Your task to perform on an android device: Search for usb-a on ebay.com, select the first entry, and add it to the cart. Image 0: 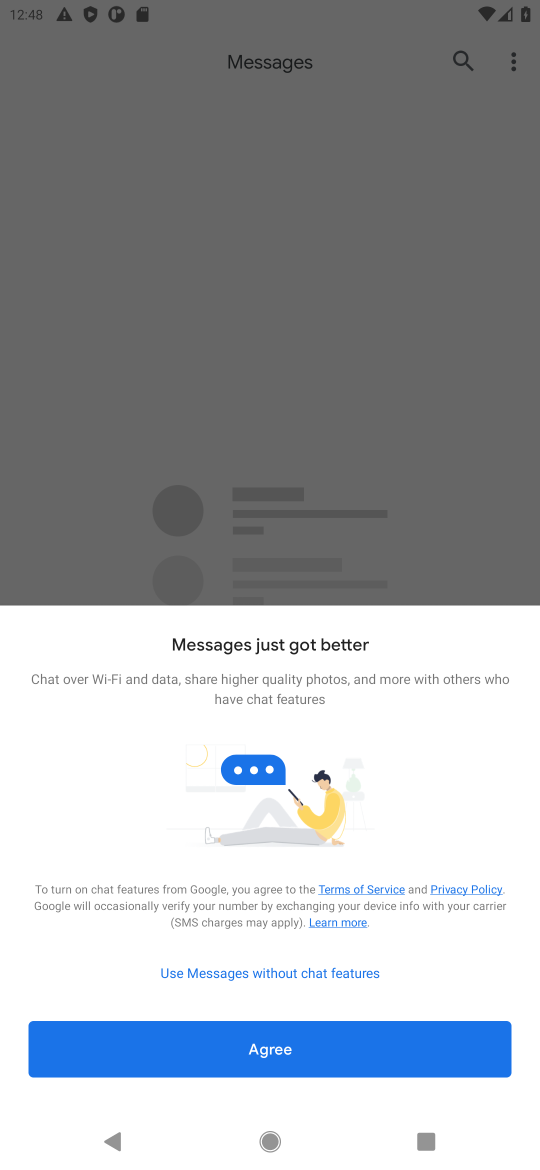
Step 0: press home button
Your task to perform on an android device: Search for usb-a on ebay.com, select the first entry, and add it to the cart. Image 1: 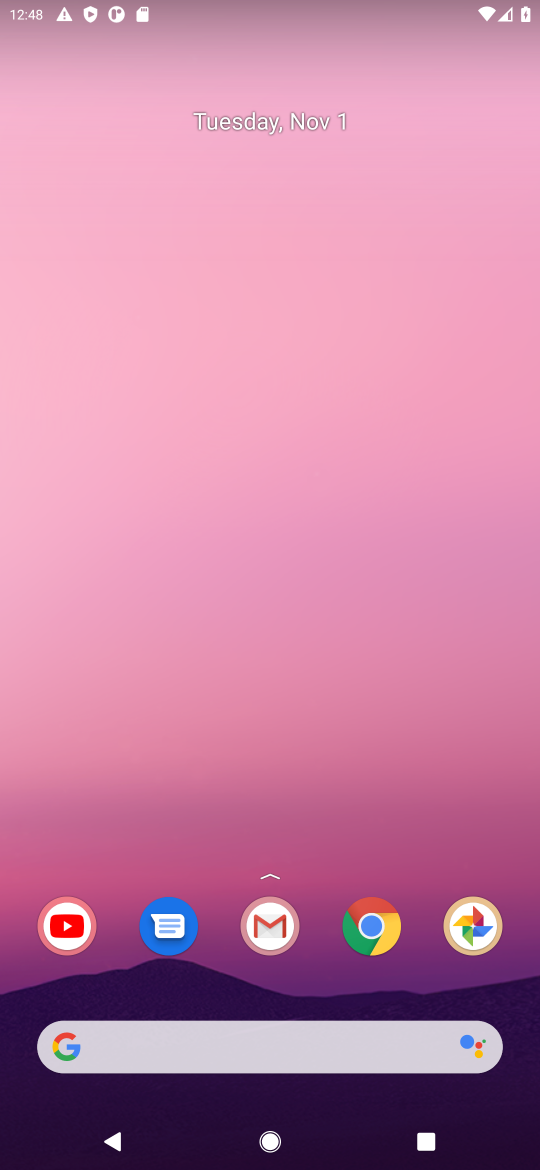
Step 1: click (380, 928)
Your task to perform on an android device: Search for usb-a on ebay.com, select the first entry, and add it to the cart. Image 2: 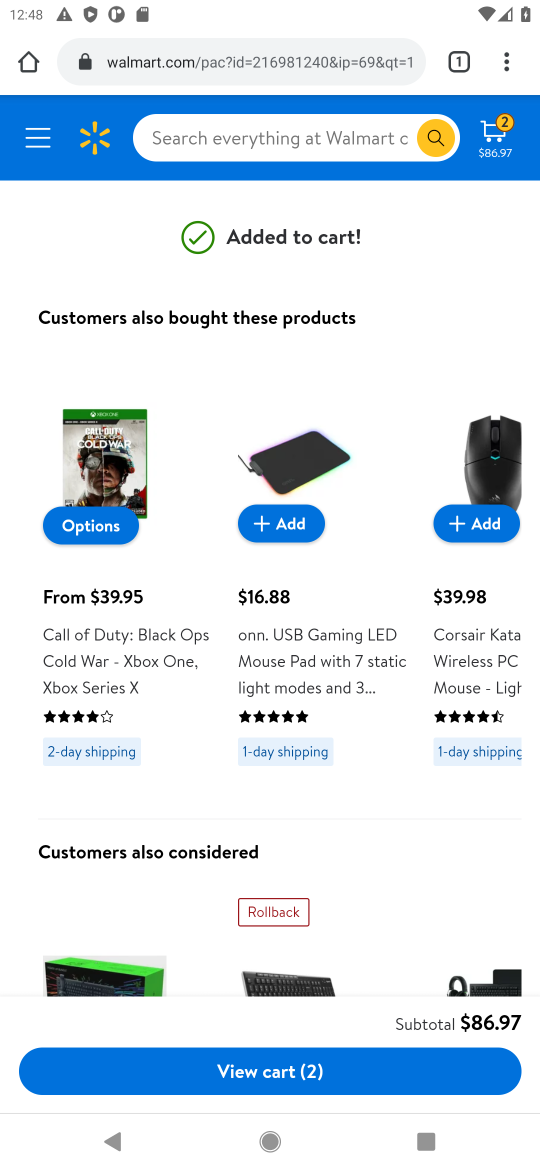
Step 2: click (288, 64)
Your task to perform on an android device: Search for usb-a on ebay.com, select the first entry, and add it to the cart. Image 3: 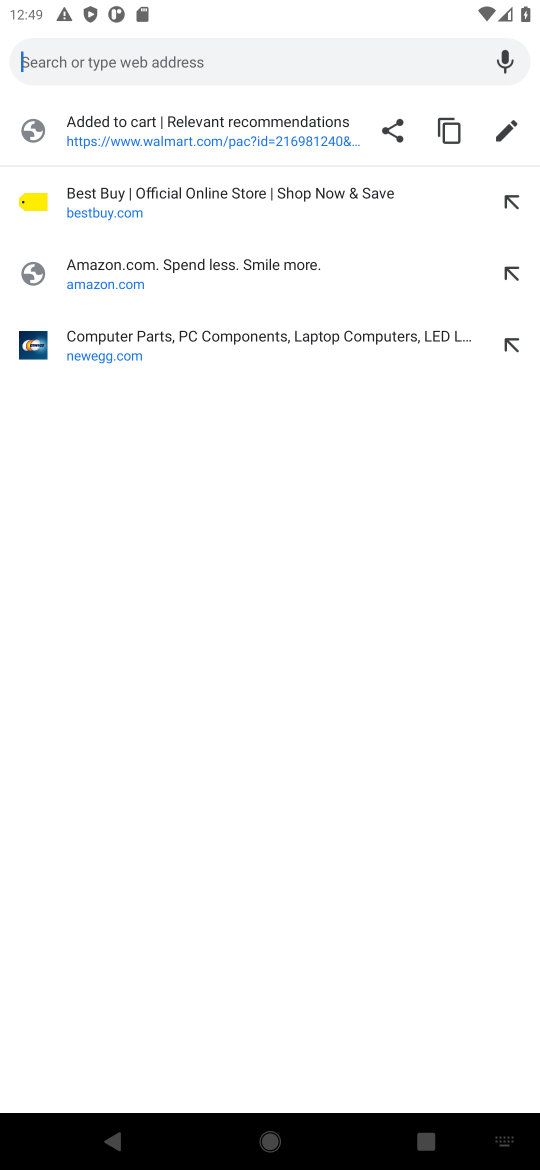
Step 3: type "ebay.com"
Your task to perform on an android device: Search for usb-a on ebay.com, select the first entry, and add it to the cart. Image 4: 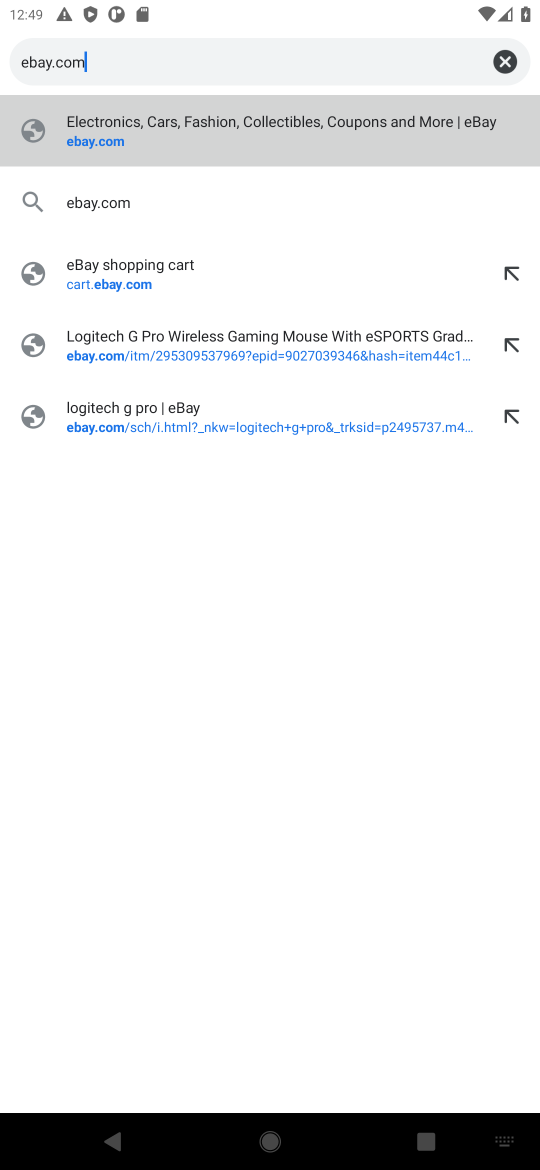
Step 4: press enter
Your task to perform on an android device: Search for usb-a on ebay.com, select the first entry, and add it to the cart. Image 5: 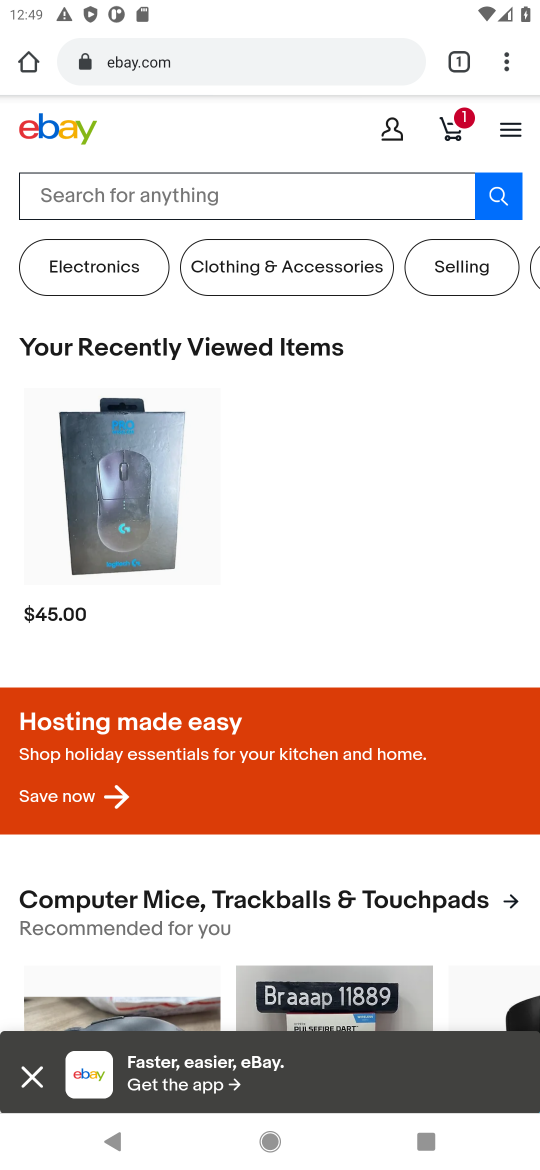
Step 5: click (231, 198)
Your task to perform on an android device: Search for usb-a on ebay.com, select the first entry, and add it to the cart. Image 6: 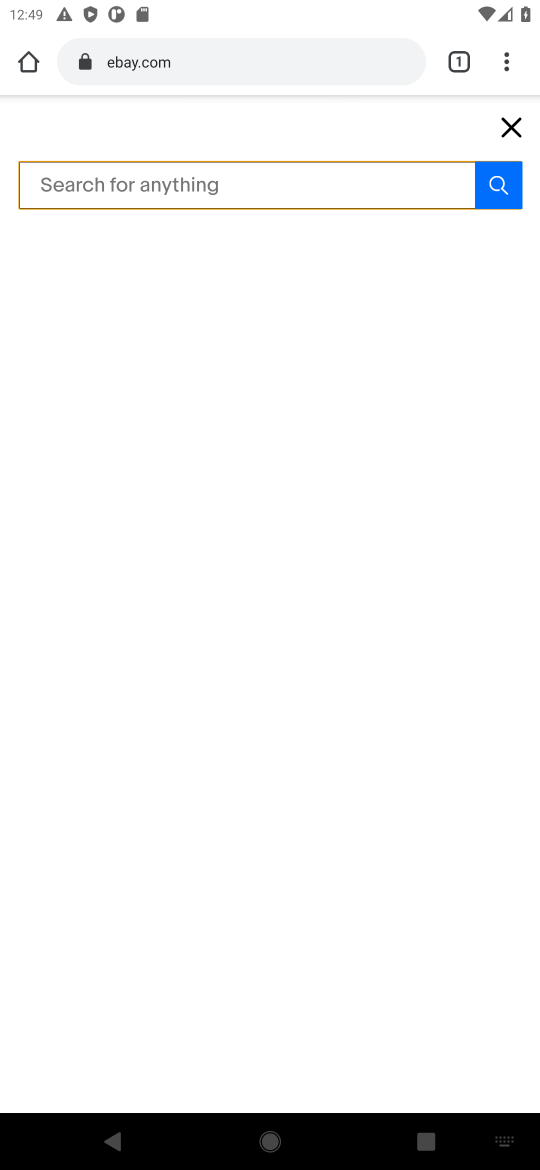
Step 6: type "usb-a "
Your task to perform on an android device: Search for usb-a on ebay.com, select the first entry, and add it to the cart. Image 7: 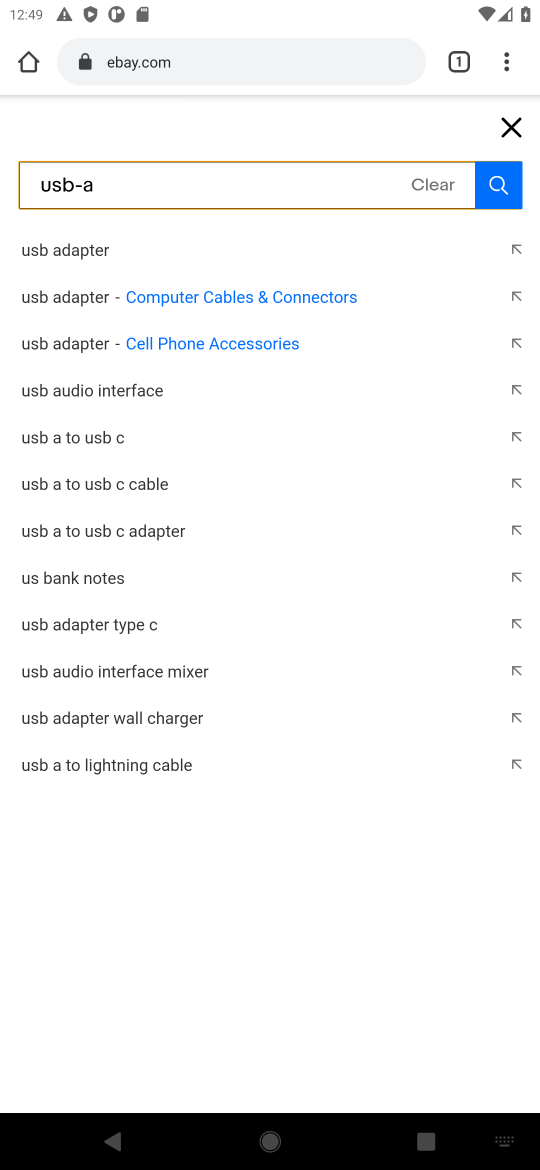
Step 7: press enter
Your task to perform on an android device: Search for usb-a on ebay.com, select the first entry, and add it to the cart. Image 8: 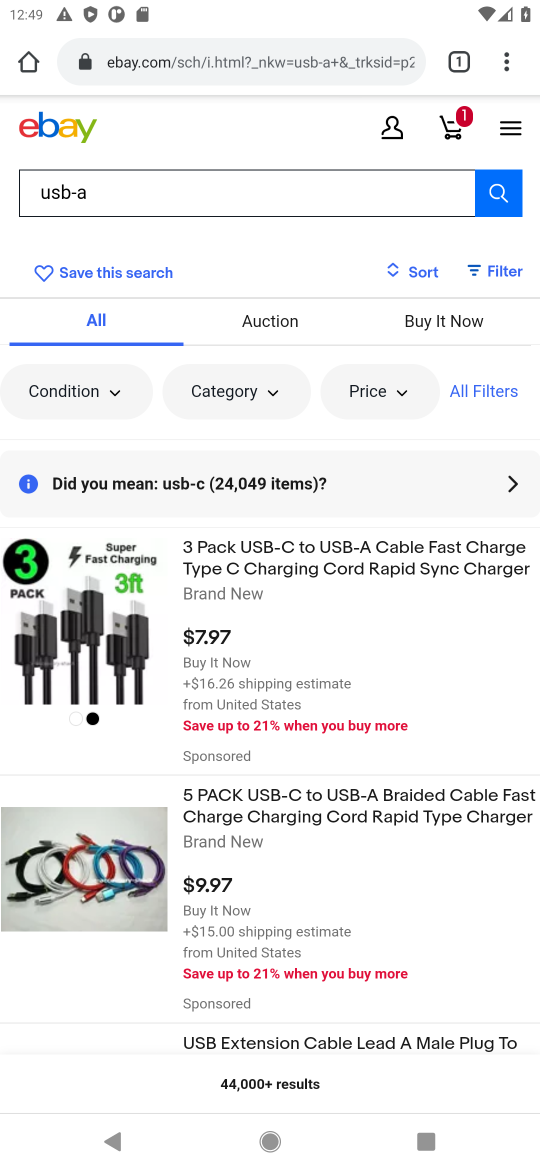
Step 8: click (277, 593)
Your task to perform on an android device: Search for usb-a on ebay.com, select the first entry, and add it to the cart. Image 9: 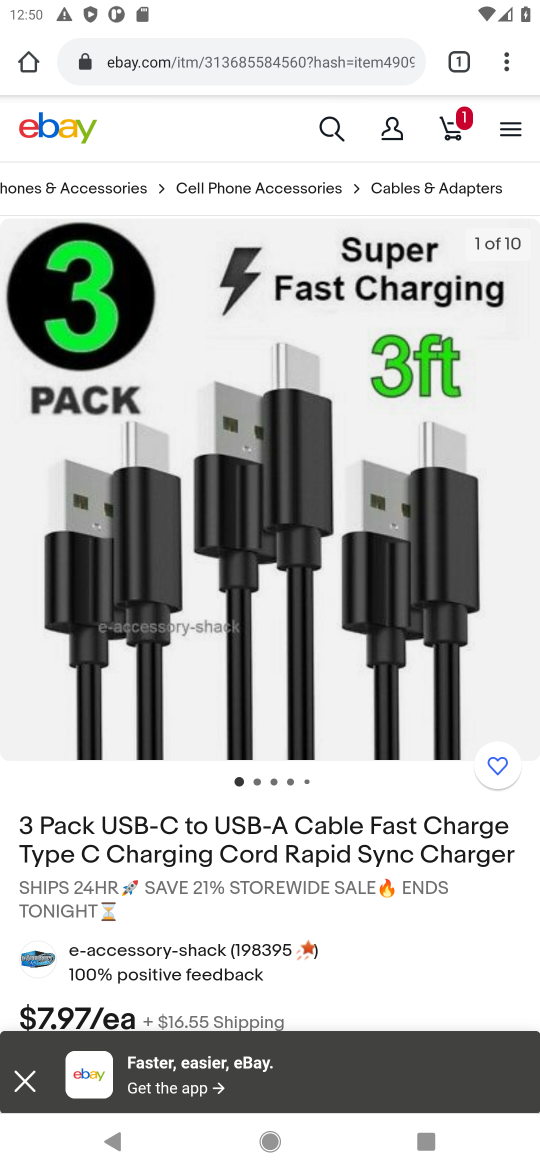
Step 9: drag from (331, 934) to (200, 319)
Your task to perform on an android device: Search for usb-a on ebay.com, select the first entry, and add it to the cart. Image 10: 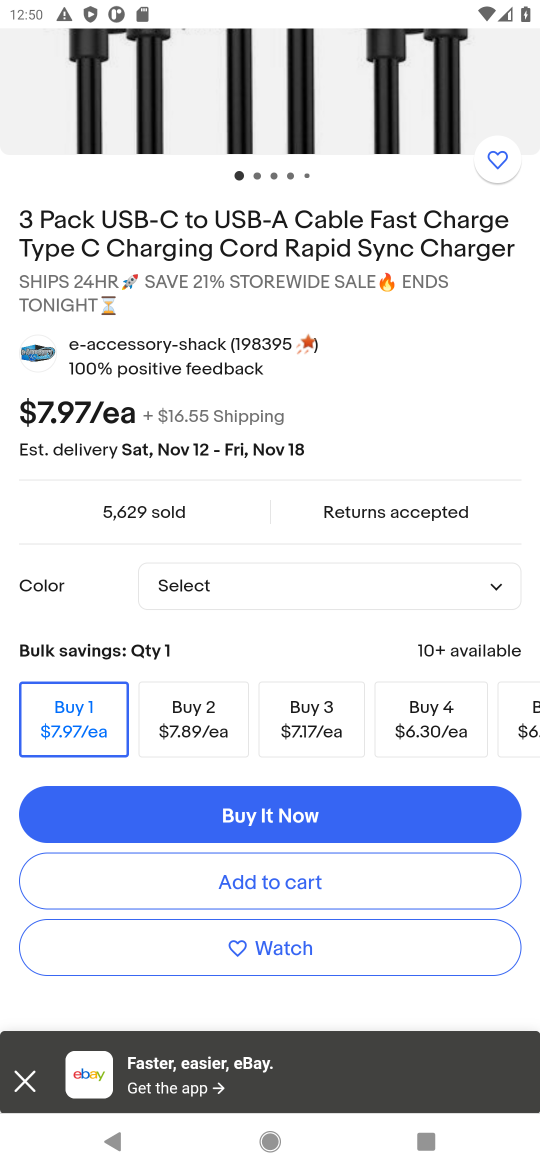
Step 10: click (262, 886)
Your task to perform on an android device: Search for usb-a on ebay.com, select the first entry, and add it to the cart. Image 11: 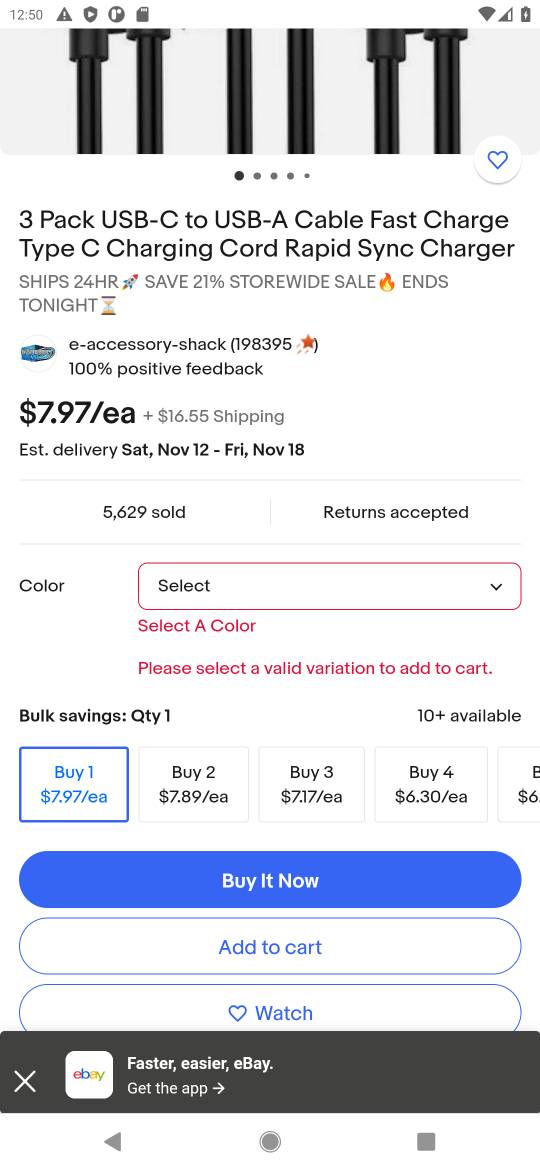
Step 11: click (338, 587)
Your task to perform on an android device: Search for usb-a on ebay.com, select the first entry, and add it to the cart. Image 12: 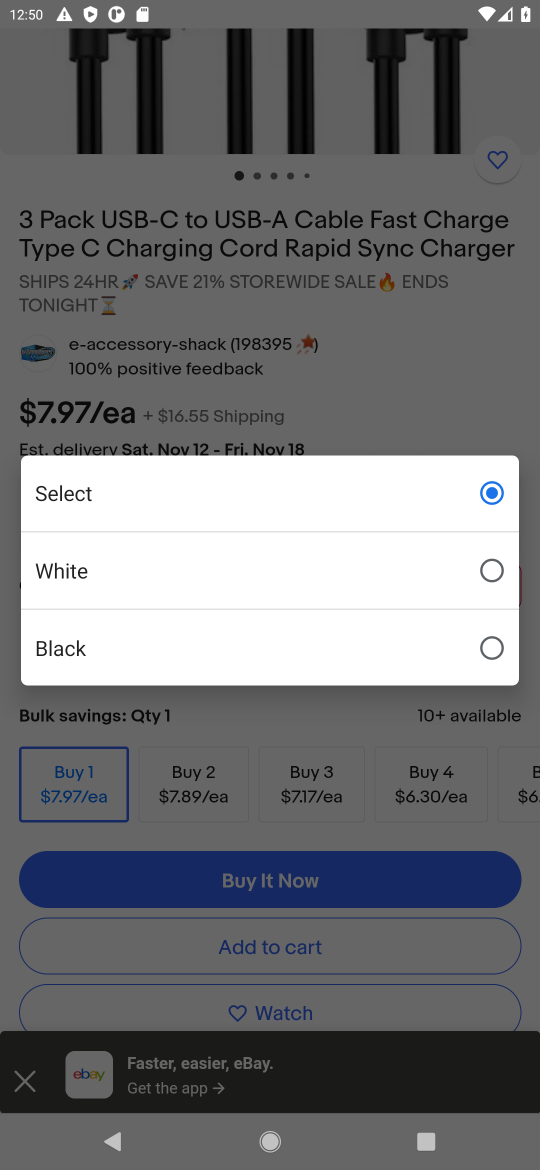
Step 12: click (303, 583)
Your task to perform on an android device: Search for usb-a on ebay.com, select the first entry, and add it to the cart. Image 13: 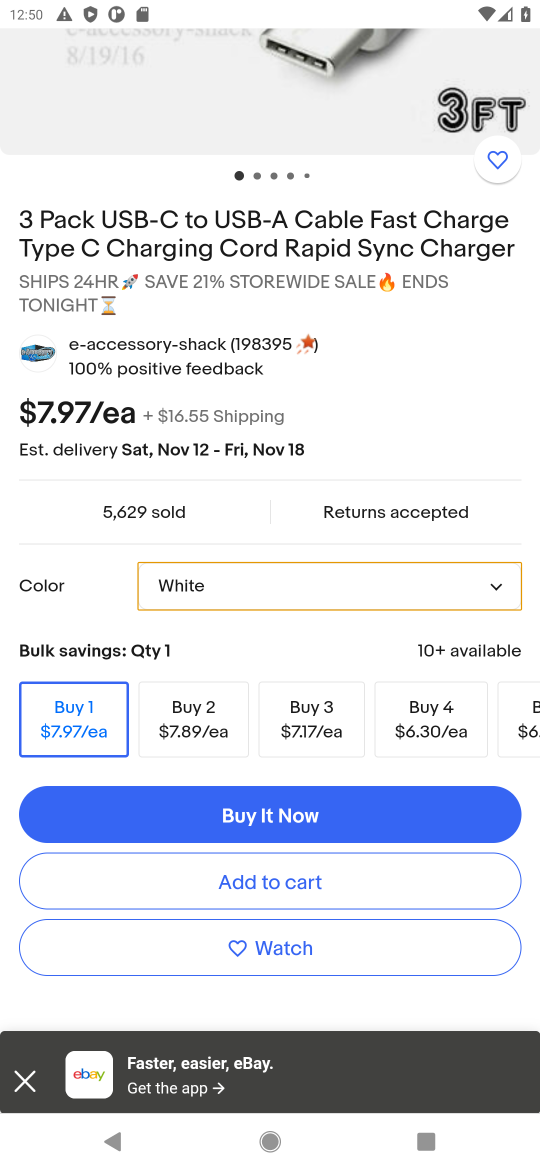
Step 13: click (234, 881)
Your task to perform on an android device: Search for usb-a on ebay.com, select the first entry, and add it to the cart. Image 14: 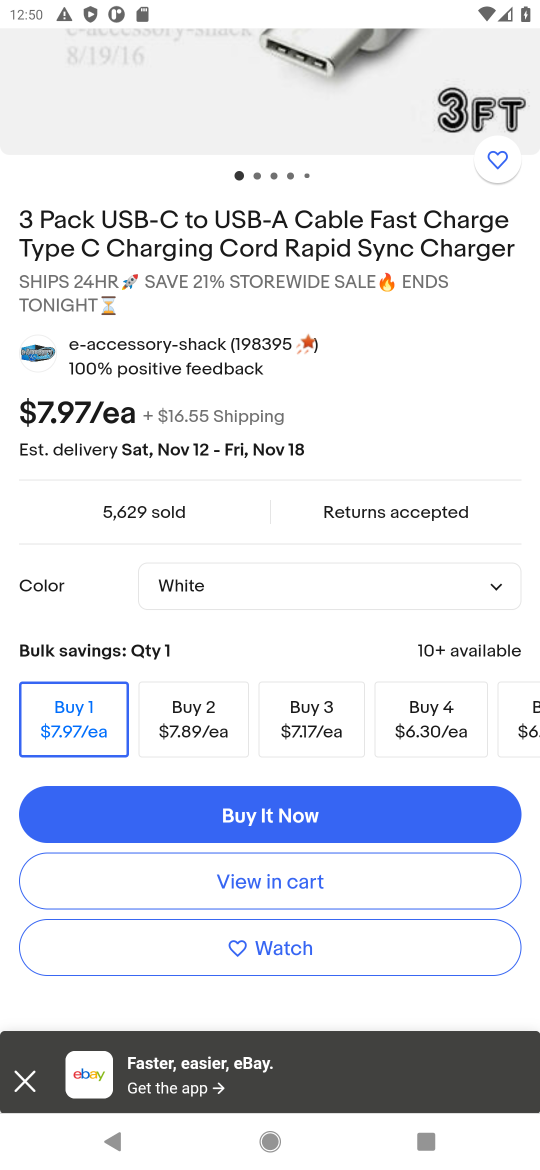
Step 14: task complete